Your task to perform on an android device: check out phone information Image 0: 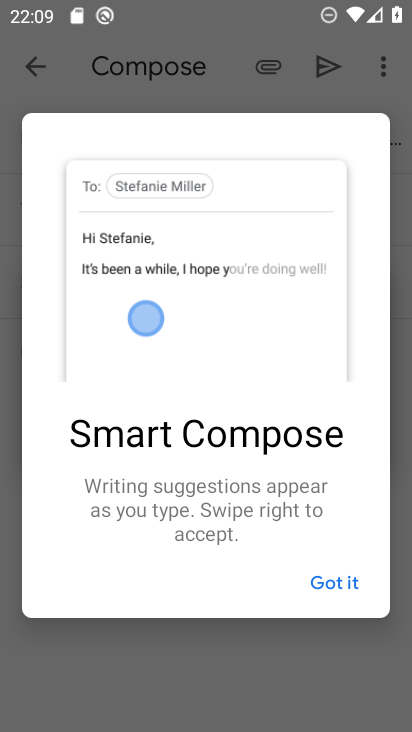
Step 0: press home button
Your task to perform on an android device: check out phone information Image 1: 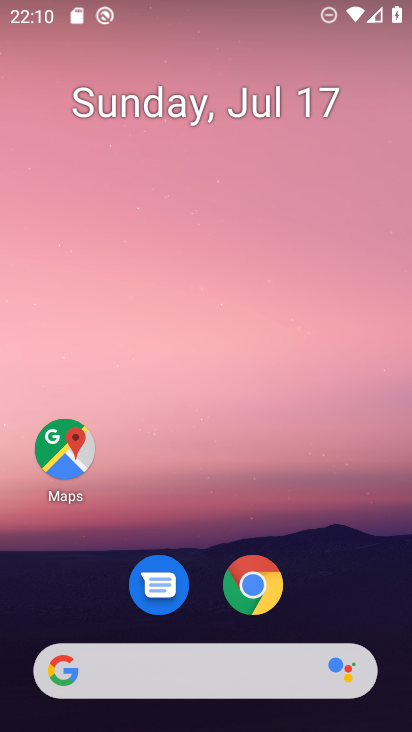
Step 1: drag from (196, 670) to (343, 56)
Your task to perform on an android device: check out phone information Image 2: 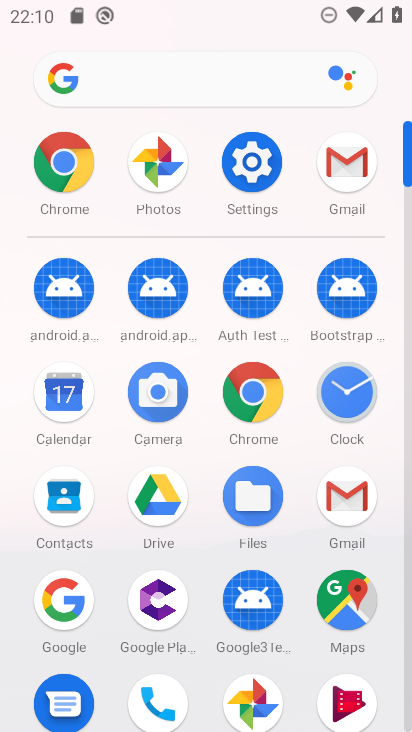
Step 2: click (255, 172)
Your task to perform on an android device: check out phone information Image 3: 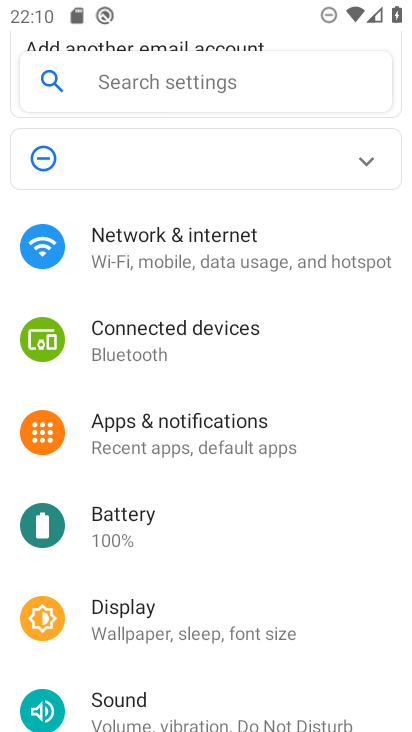
Step 3: drag from (210, 667) to (388, 72)
Your task to perform on an android device: check out phone information Image 4: 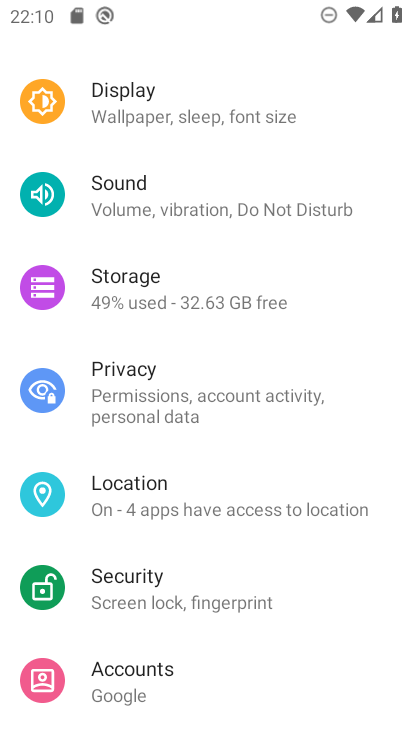
Step 4: drag from (232, 650) to (326, 27)
Your task to perform on an android device: check out phone information Image 5: 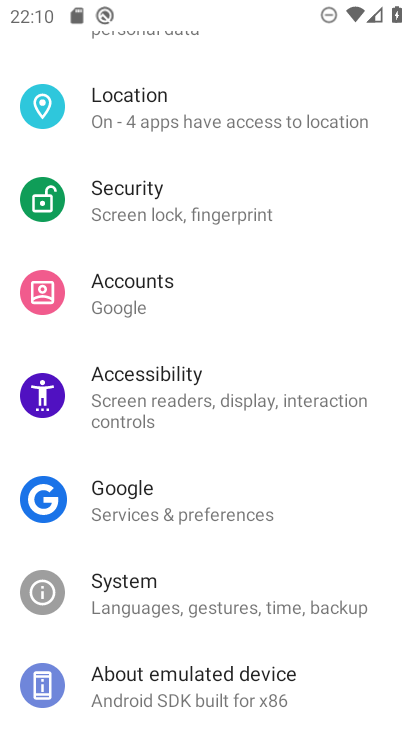
Step 5: click (166, 686)
Your task to perform on an android device: check out phone information Image 6: 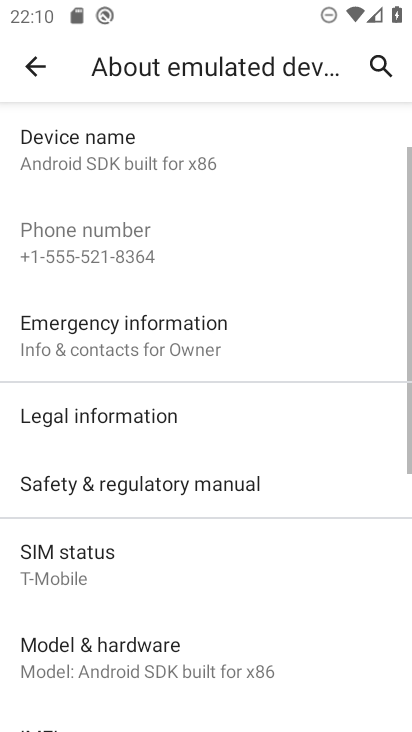
Step 6: task complete